Your task to perform on an android device: Go to Maps Image 0: 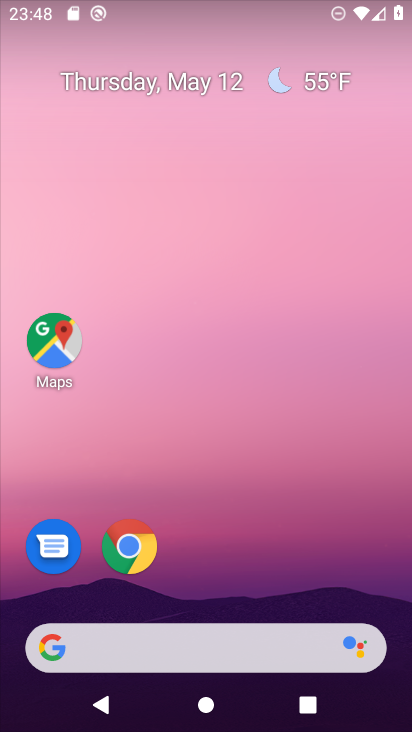
Step 0: click (53, 342)
Your task to perform on an android device: Go to Maps Image 1: 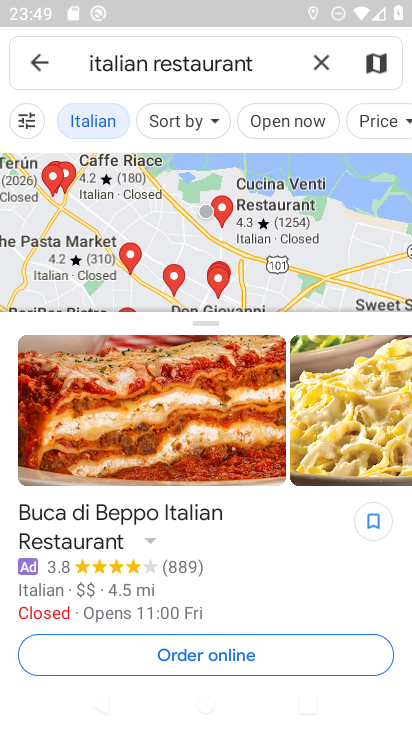
Step 1: press home button
Your task to perform on an android device: Go to Maps Image 2: 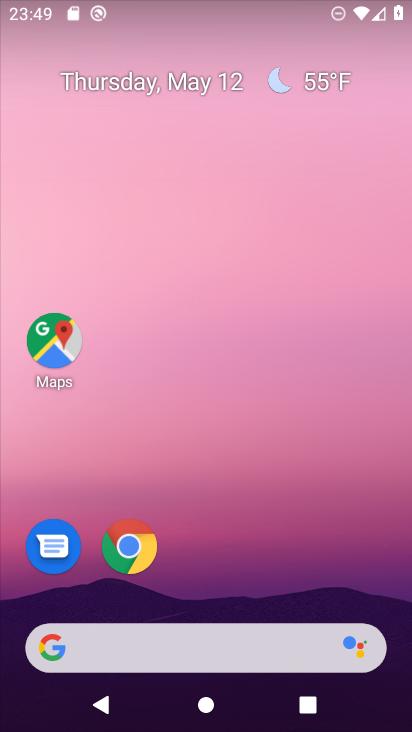
Step 2: click (48, 338)
Your task to perform on an android device: Go to Maps Image 3: 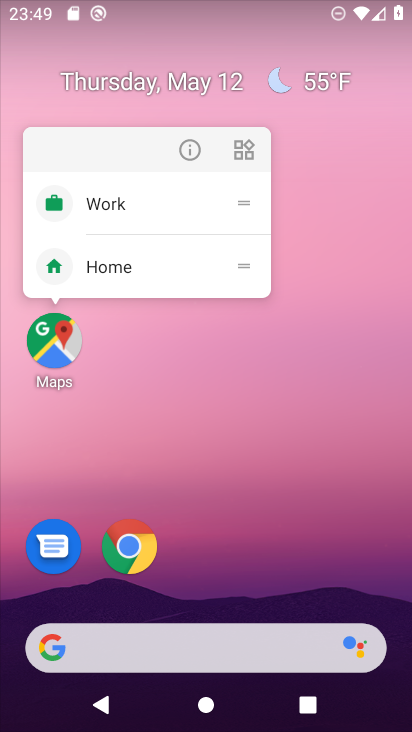
Step 3: click (186, 146)
Your task to perform on an android device: Go to Maps Image 4: 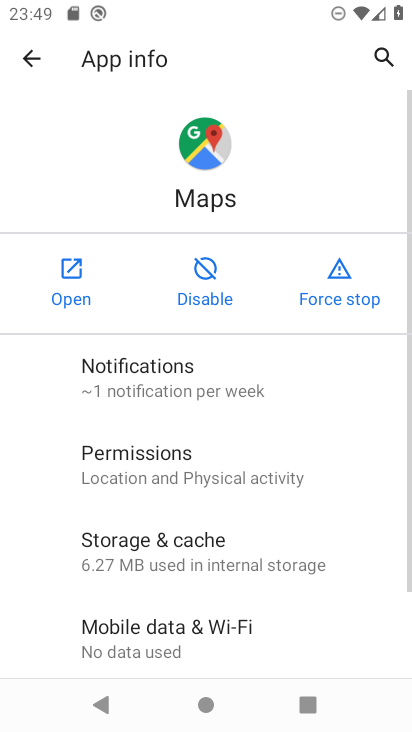
Step 4: click (76, 269)
Your task to perform on an android device: Go to Maps Image 5: 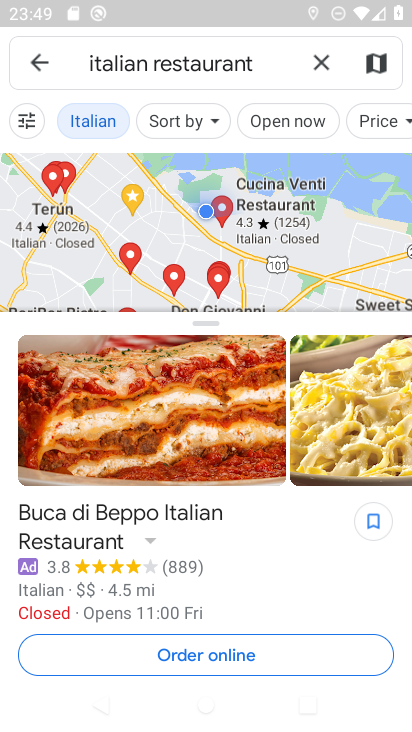
Step 5: task complete